Your task to perform on an android device: toggle notification dots Image 0: 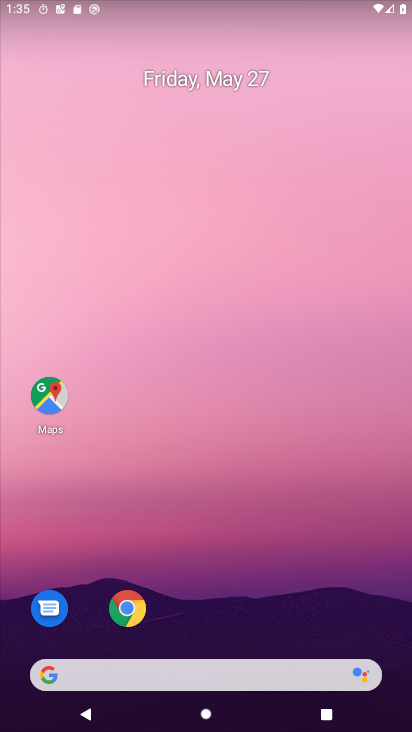
Step 0: drag from (387, 695) to (339, 113)
Your task to perform on an android device: toggle notification dots Image 1: 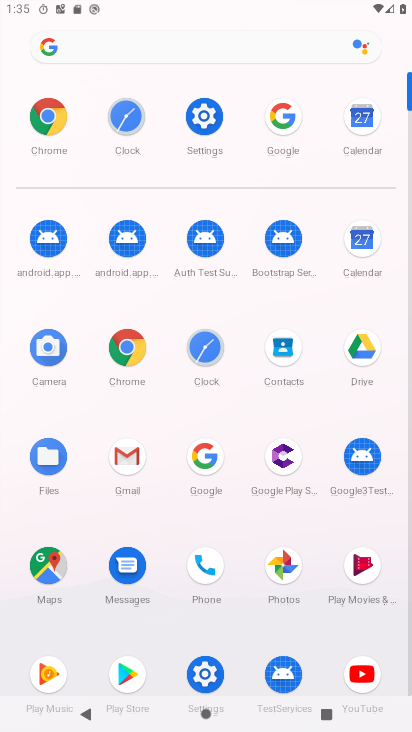
Step 1: click (203, 676)
Your task to perform on an android device: toggle notification dots Image 2: 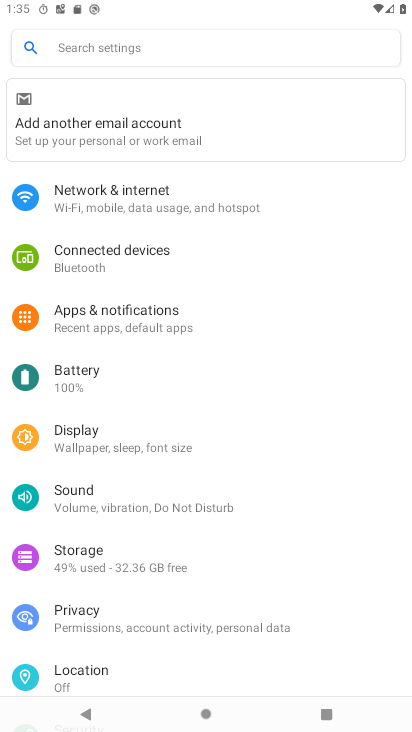
Step 2: click (109, 319)
Your task to perform on an android device: toggle notification dots Image 3: 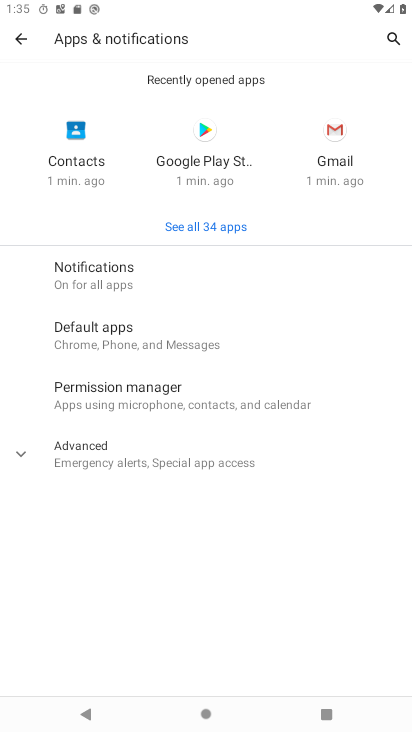
Step 3: click (85, 269)
Your task to perform on an android device: toggle notification dots Image 4: 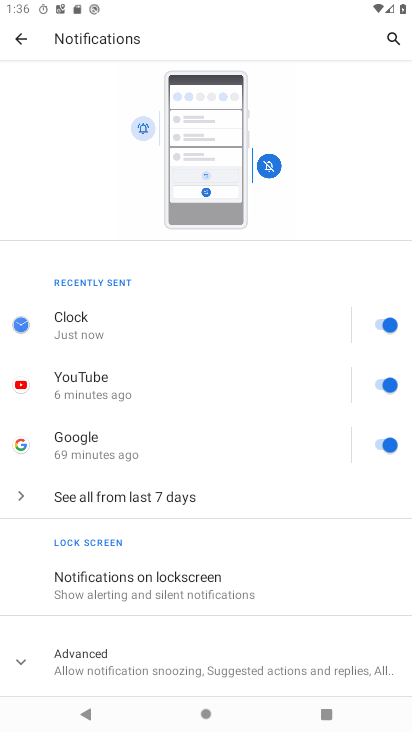
Step 4: click (17, 660)
Your task to perform on an android device: toggle notification dots Image 5: 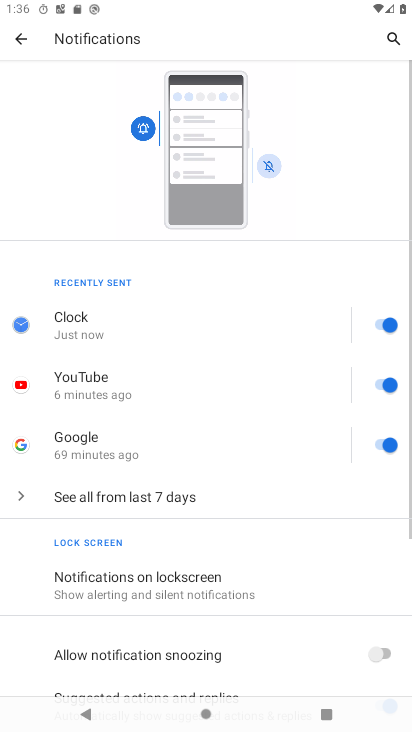
Step 5: drag from (309, 663) to (319, 173)
Your task to perform on an android device: toggle notification dots Image 6: 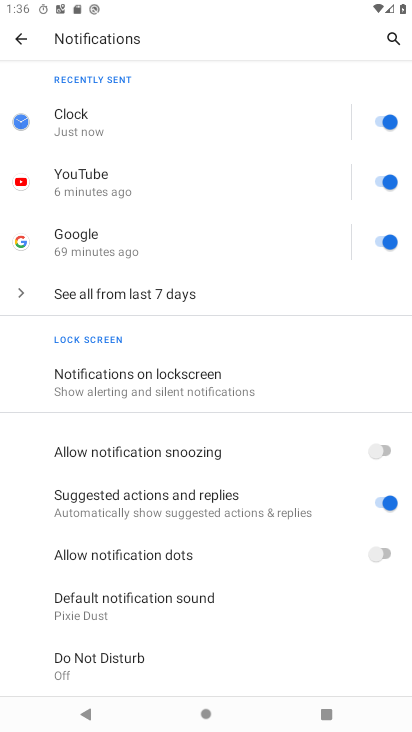
Step 6: click (390, 551)
Your task to perform on an android device: toggle notification dots Image 7: 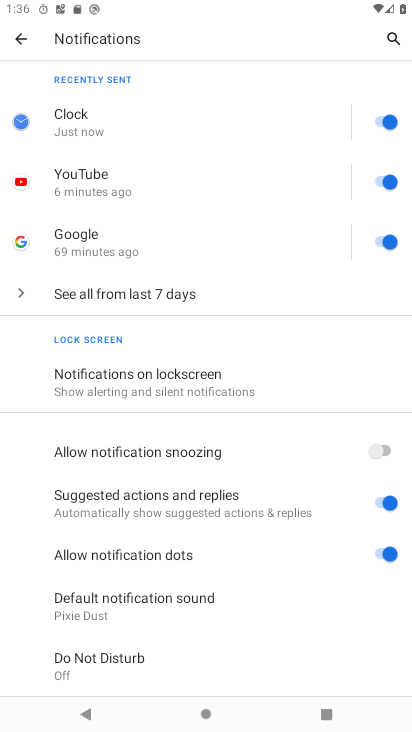
Step 7: task complete